Your task to perform on an android device: turn on sleep mode Image 0: 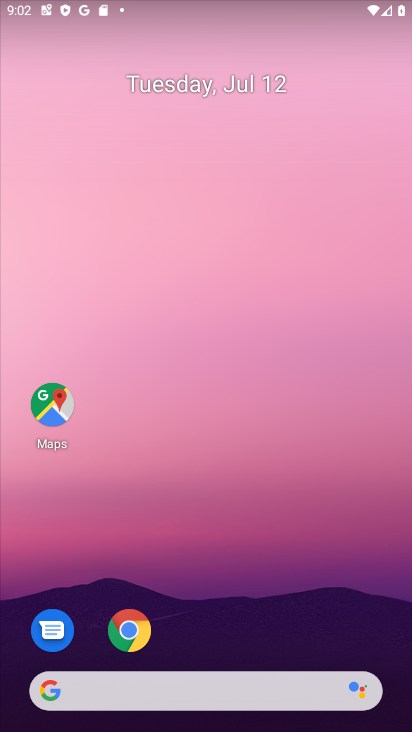
Step 0: drag from (223, 625) to (275, 89)
Your task to perform on an android device: turn on sleep mode Image 1: 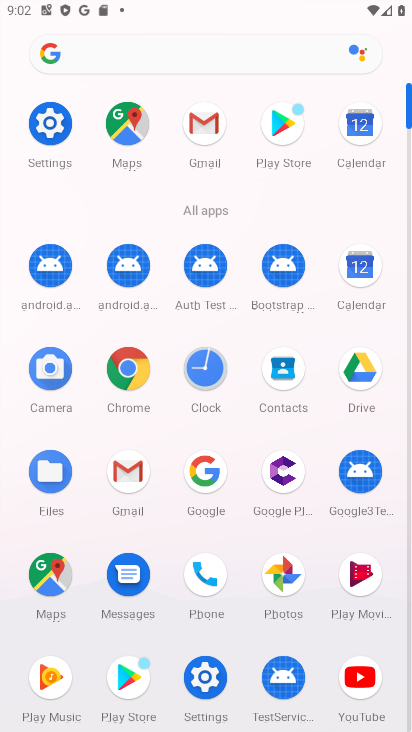
Step 1: click (48, 121)
Your task to perform on an android device: turn on sleep mode Image 2: 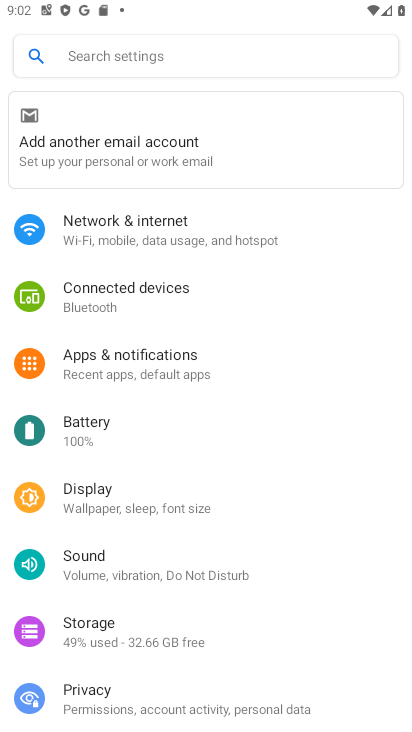
Step 2: click (124, 490)
Your task to perform on an android device: turn on sleep mode Image 3: 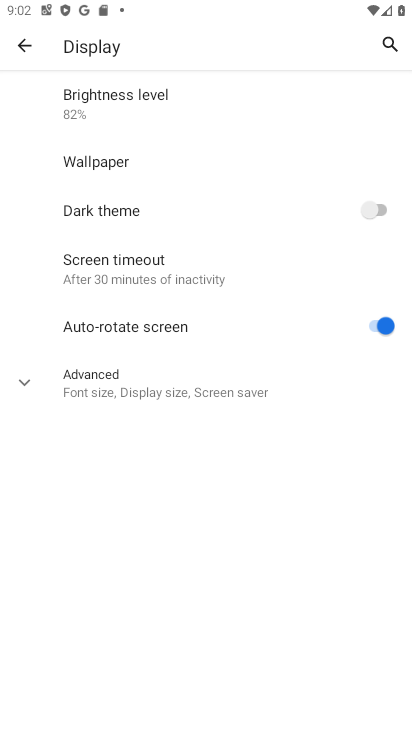
Step 3: click (122, 275)
Your task to perform on an android device: turn on sleep mode Image 4: 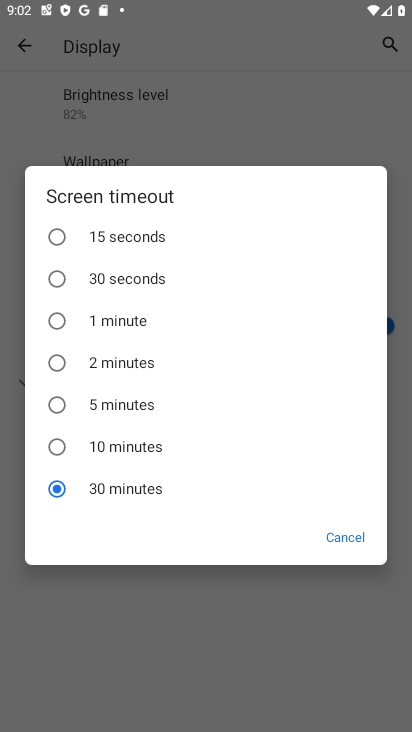
Step 4: task complete